Your task to perform on an android device: Is it going to rain tomorrow? Image 0: 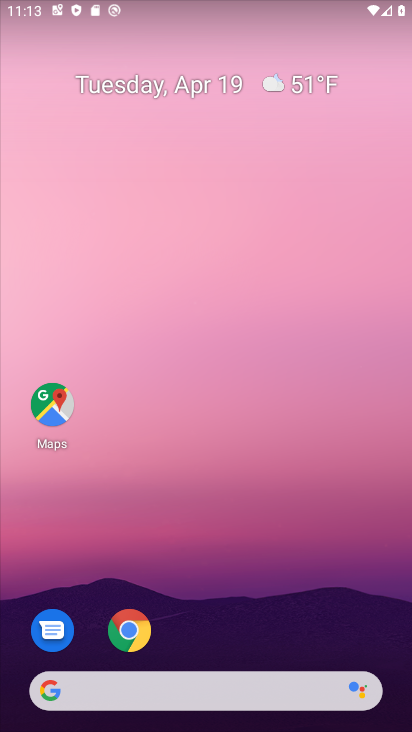
Step 0: click (132, 631)
Your task to perform on an android device: Is it going to rain tomorrow? Image 1: 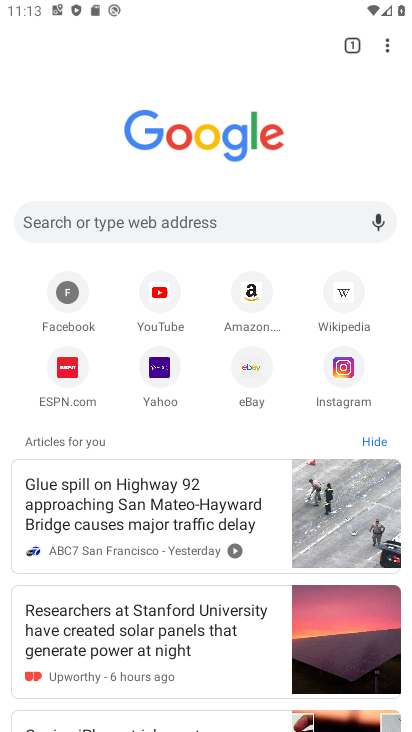
Step 1: click (265, 230)
Your task to perform on an android device: Is it going to rain tomorrow? Image 2: 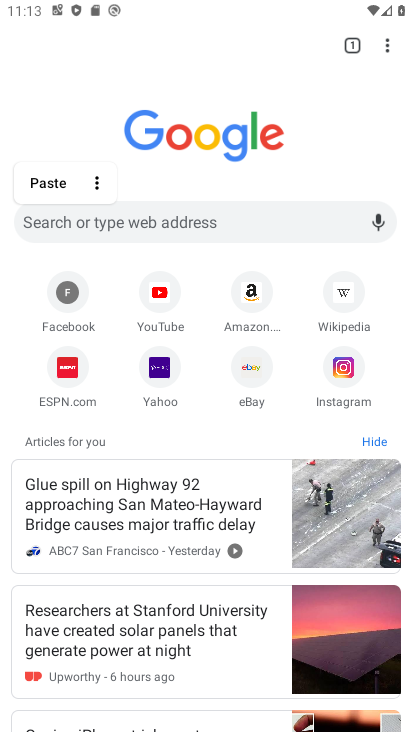
Step 2: click (233, 232)
Your task to perform on an android device: Is it going to rain tomorrow? Image 3: 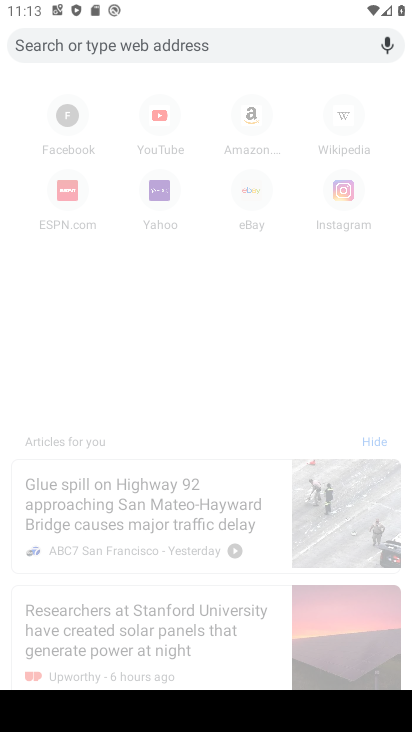
Step 3: type "Is it going to rain tomorrow?"
Your task to perform on an android device: Is it going to rain tomorrow? Image 4: 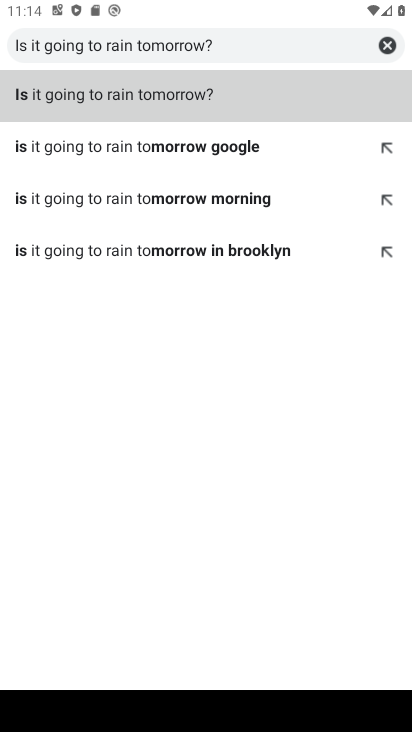
Step 4: click (282, 92)
Your task to perform on an android device: Is it going to rain tomorrow? Image 5: 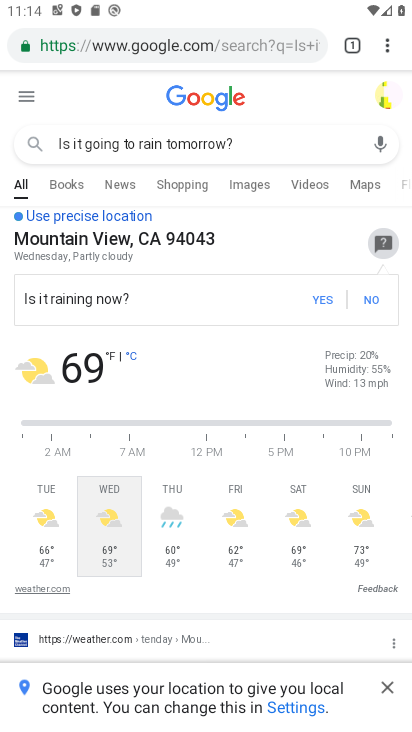
Step 5: task complete